Your task to perform on an android device: Open calendar and show me the second week of next month Image 0: 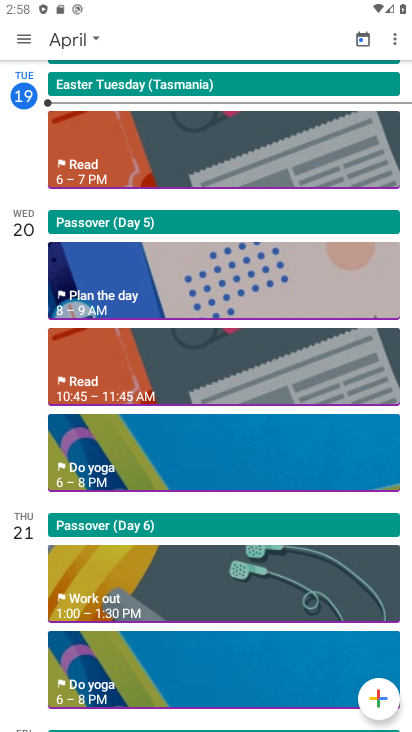
Step 0: press home button
Your task to perform on an android device: Open calendar and show me the second week of next month Image 1: 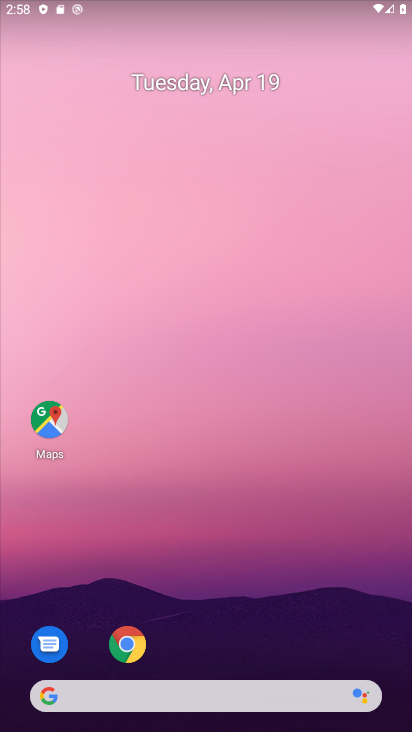
Step 1: drag from (354, 629) to (285, 201)
Your task to perform on an android device: Open calendar and show me the second week of next month Image 2: 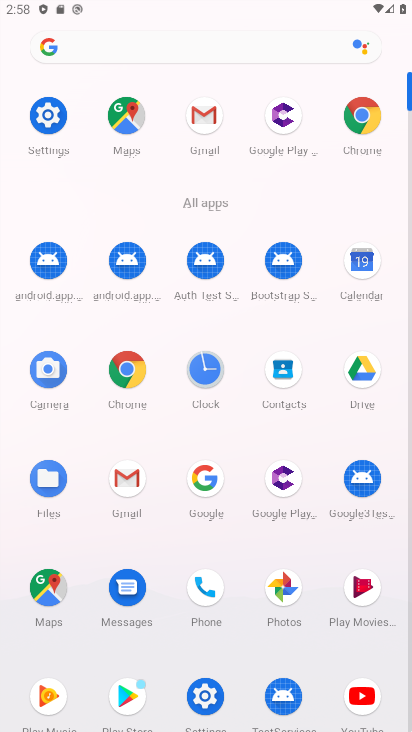
Step 2: click (361, 262)
Your task to perform on an android device: Open calendar and show me the second week of next month Image 3: 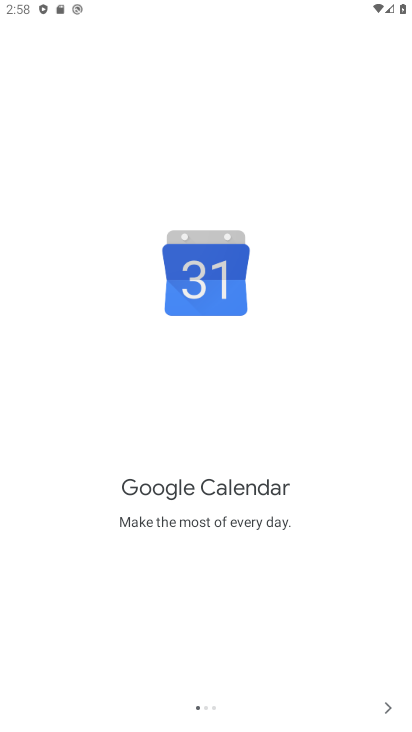
Step 3: click (384, 705)
Your task to perform on an android device: Open calendar and show me the second week of next month Image 4: 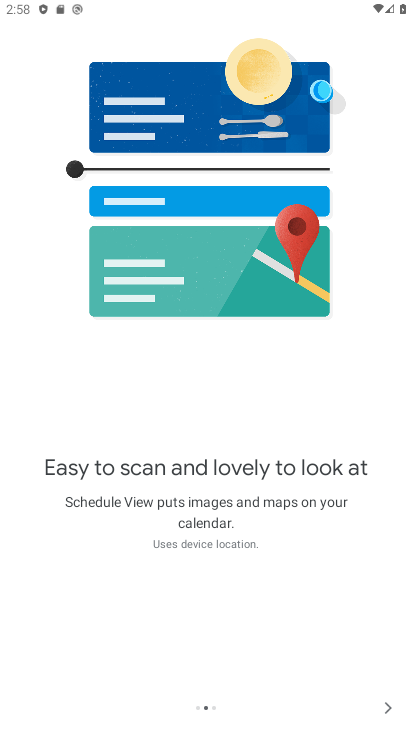
Step 4: click (384, 705)
Your task to perform on an android device: Open calendar and show me the second week of next month Image 5: 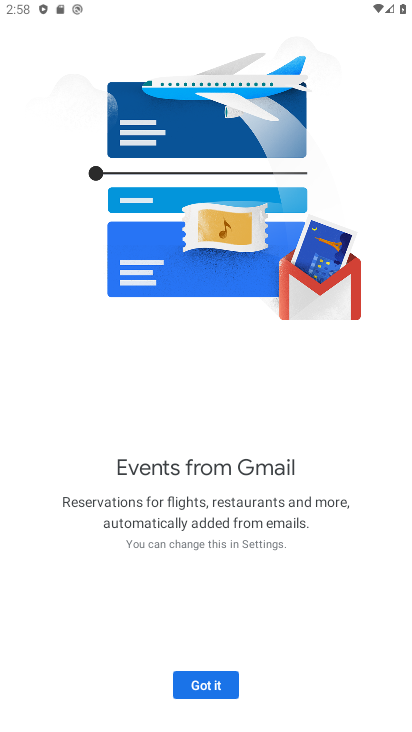
Step 5: click (209, 691)
Your task to perform on an android device: Open calendar and show me the second week of next month Image 6: 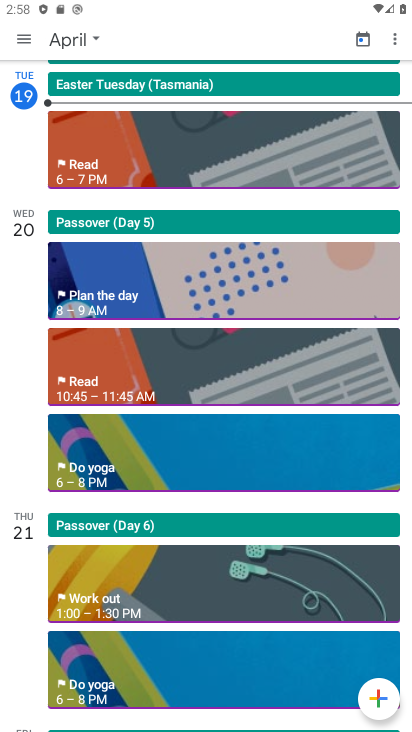
Step 6: click (22, 34)
Your task to perform on an android device: Open calendar and show me the second week of next month Image 7: 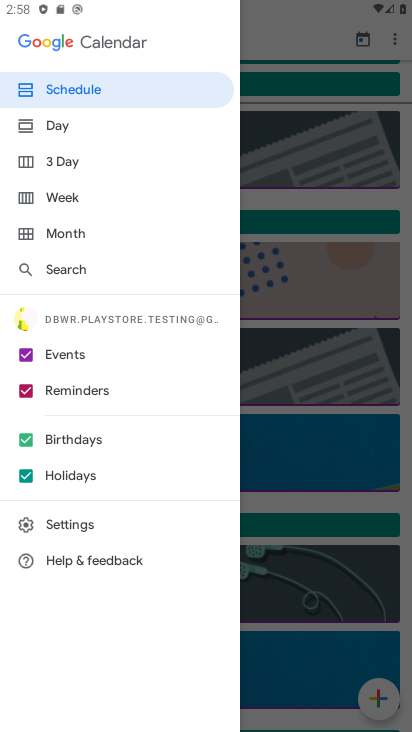
Step 7: click (72, 193)
Your task to perform on an android device: Open calendar and show me the second week of next month Image 8: 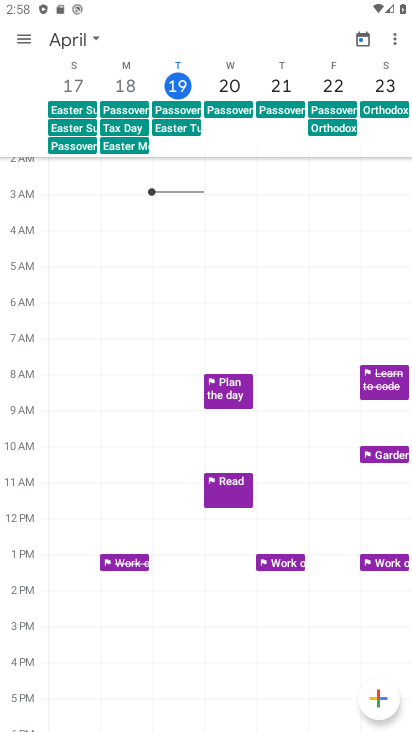
Step 8: click (22, 35)
Your task to perform on an android device: Open calendar and show me the second week of next month Image 9: 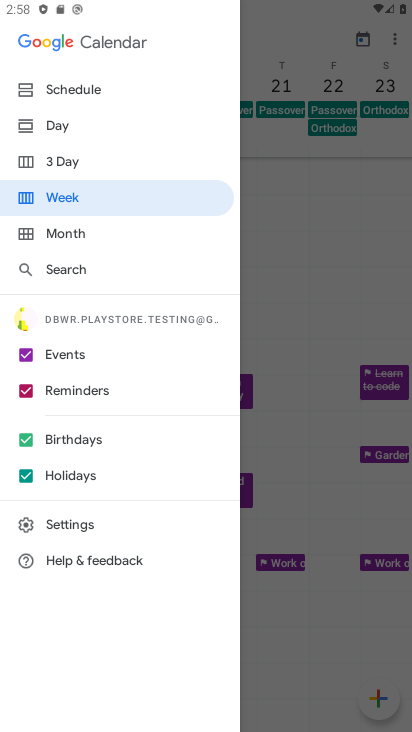
Step 9: click (87, 195)
Your task to perform on an android device: Open calendar and show me the second week of next month Image 10: 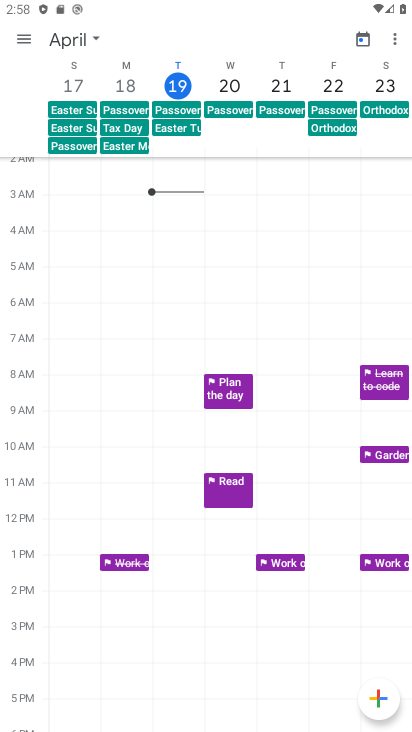
Step 10: click (90, 32)
Your task to perform on an android device: Open calendar and show me the second week of next month Image 11: 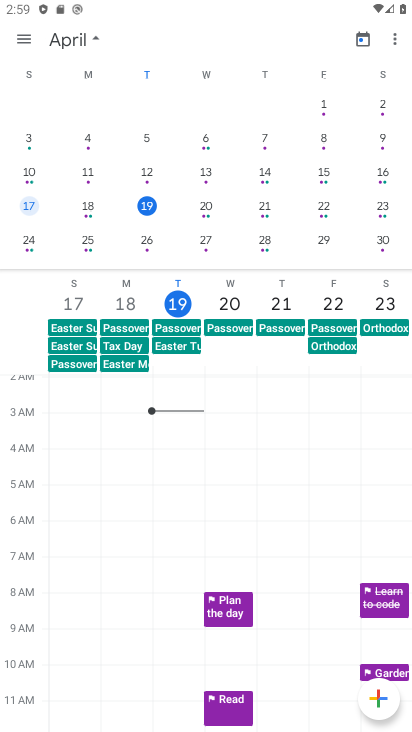
Step 11: drag from (386, 216) to (82, 206)
Your task to perform on an android device: Open calendar and show me the second week of next month Image 12: 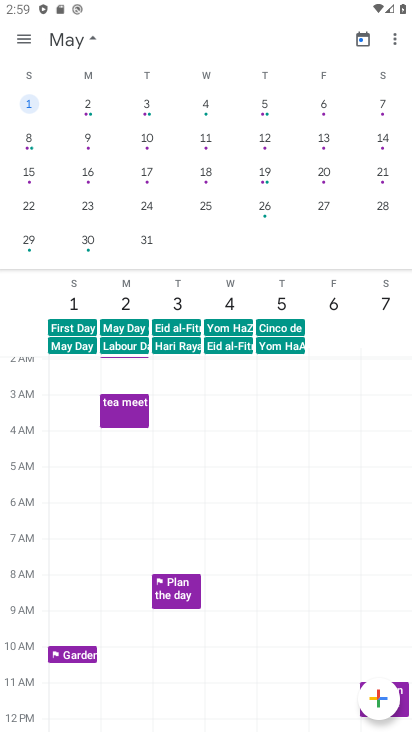
Step 12: click (28, 137)
Your task to perform on an android device: Open calendar and show me the second week of next month Image 13: 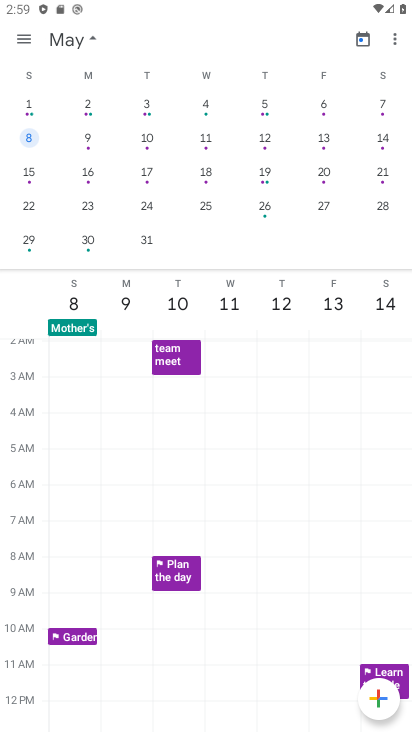
Step 13: task complete